Your task to perform on an android device: Search for pizza restaurants on Maps Image 0: 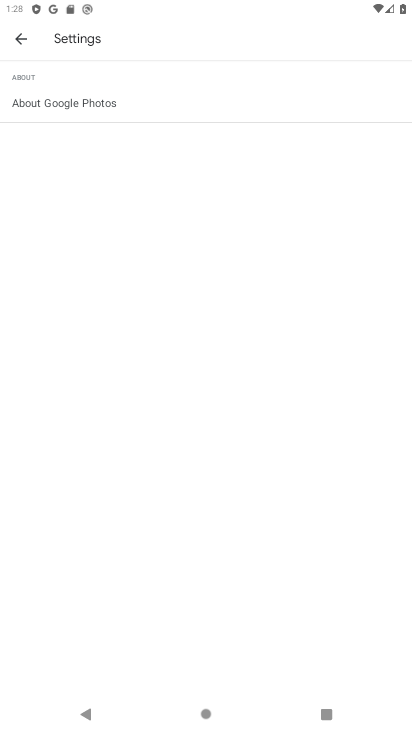
Step 0: press home button
Your task to perform on an android device: Search for pizza restaurants on Maps Image 1: 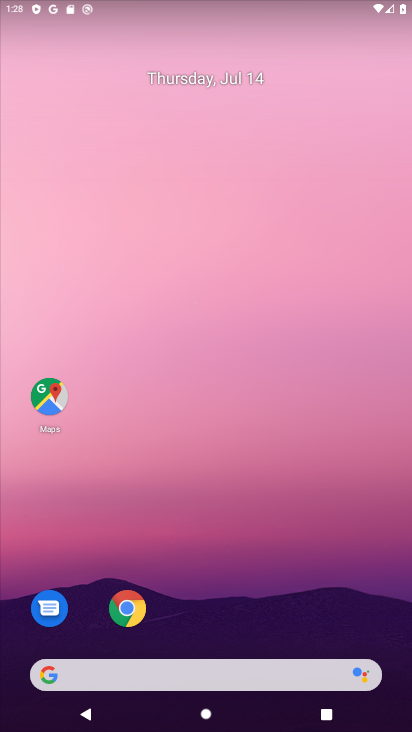
Step 1: drag from (255, 553) to (274, 113)
Your task to perform on an android device: Search for pizza restaurants on Maps Image 2: 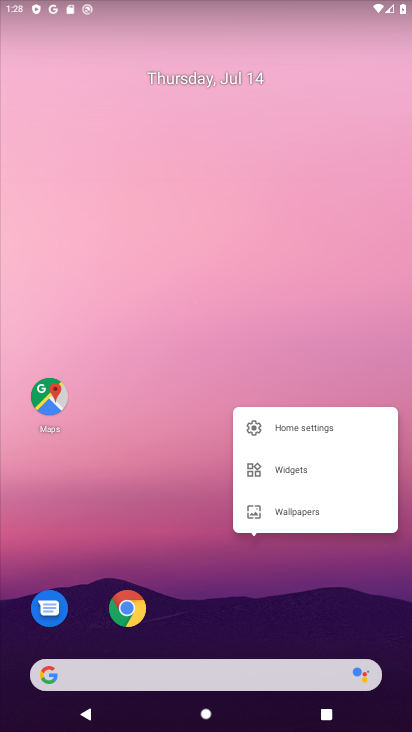
Step 2: click (202, 380)
Your task to perform on an android device: Search for pizza restaurants on Maps Image 3: 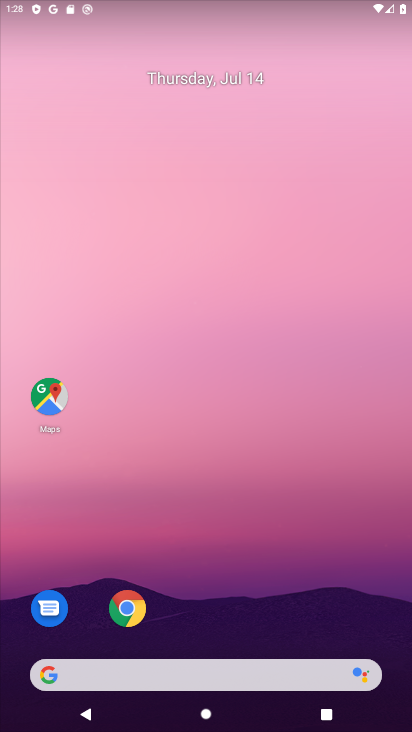
Step 3: click (44, 397)
Your task to perform on an android device: Search for pizza restaurants on Maps Image 4: 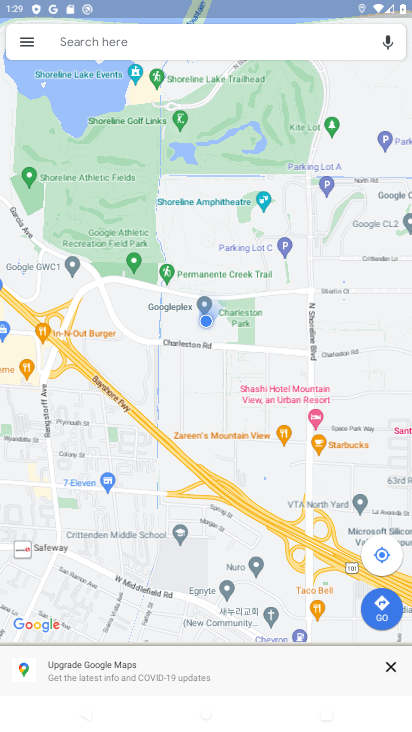
Step 4: click (94, 36)
Your task to perform on an android device: Search for pizza restaurants on Maps Image 5: 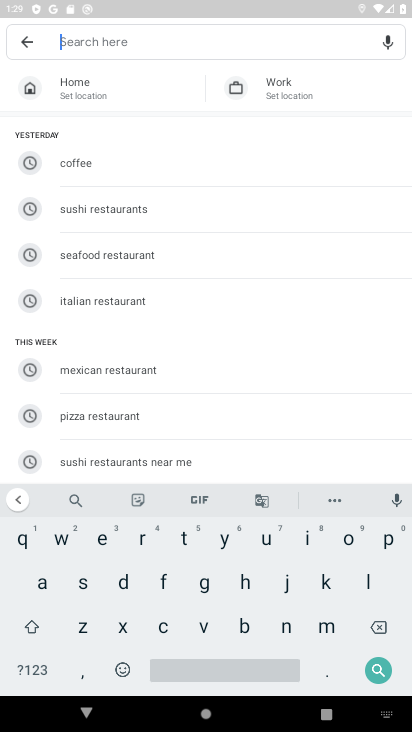
Step 5: click (115, 420)
Your task to perform on an android device: Search for pizza restaurants on Maps Image 6: 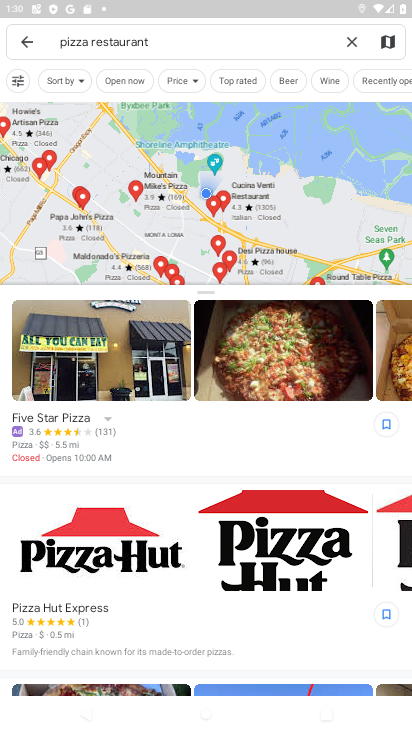
Step 6: task complete